Your task to perform on an android device: uninstall "Chime – Mobile Banking" Image 0: 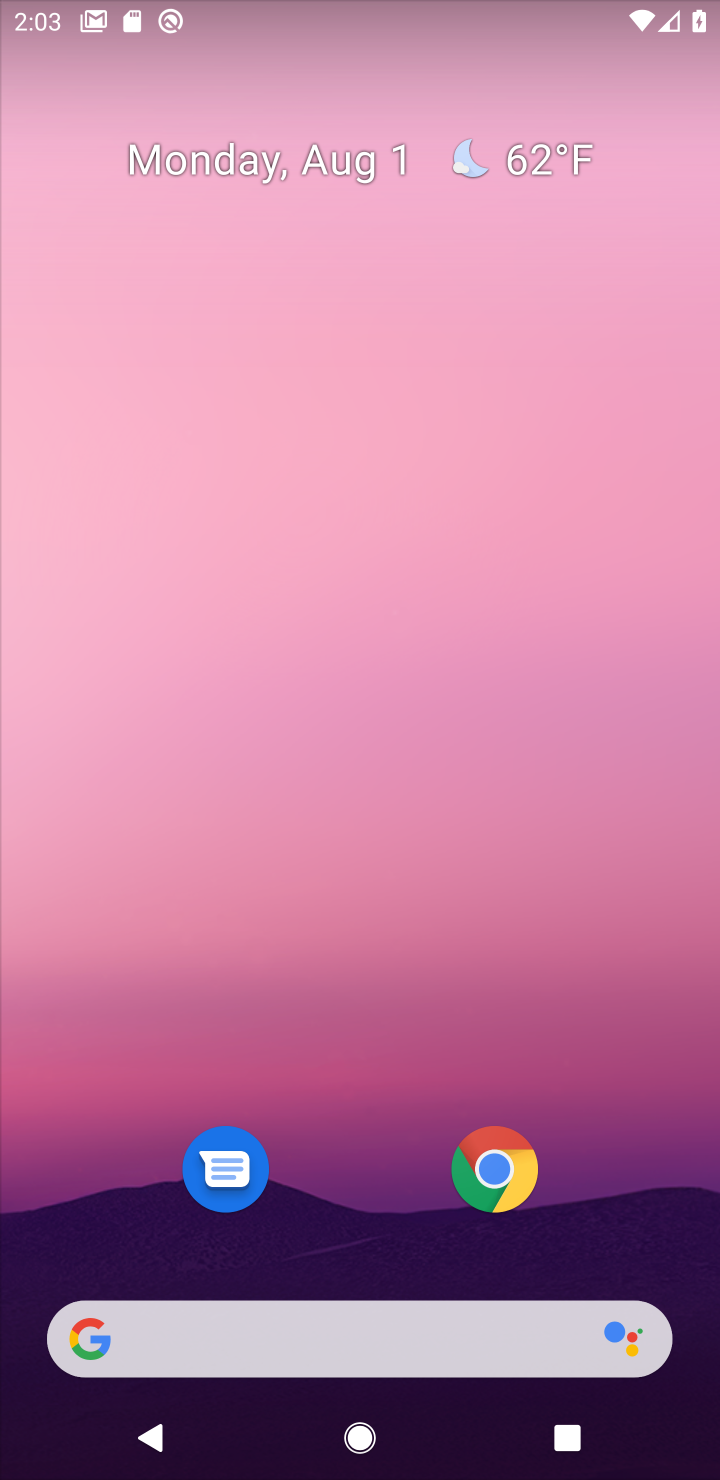
Step 0: drag from (326, 1183) to (326, 252)
Your task to perform on an android device: uninstall "Chime – Mobile Banking" Image 1: 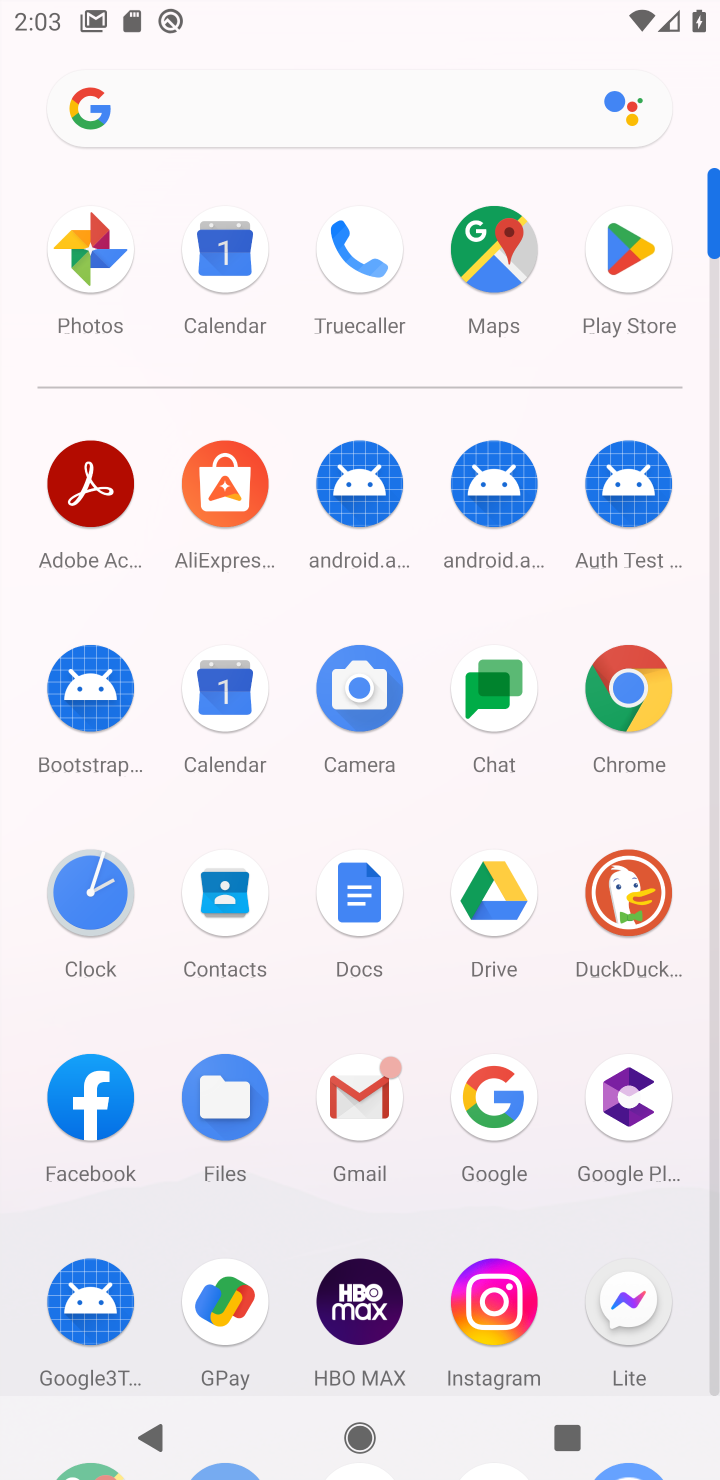
Step 1: click (650, 234)
Your task to perform on an android device: uninstall "Chime – Mobile Banking" Image 2: 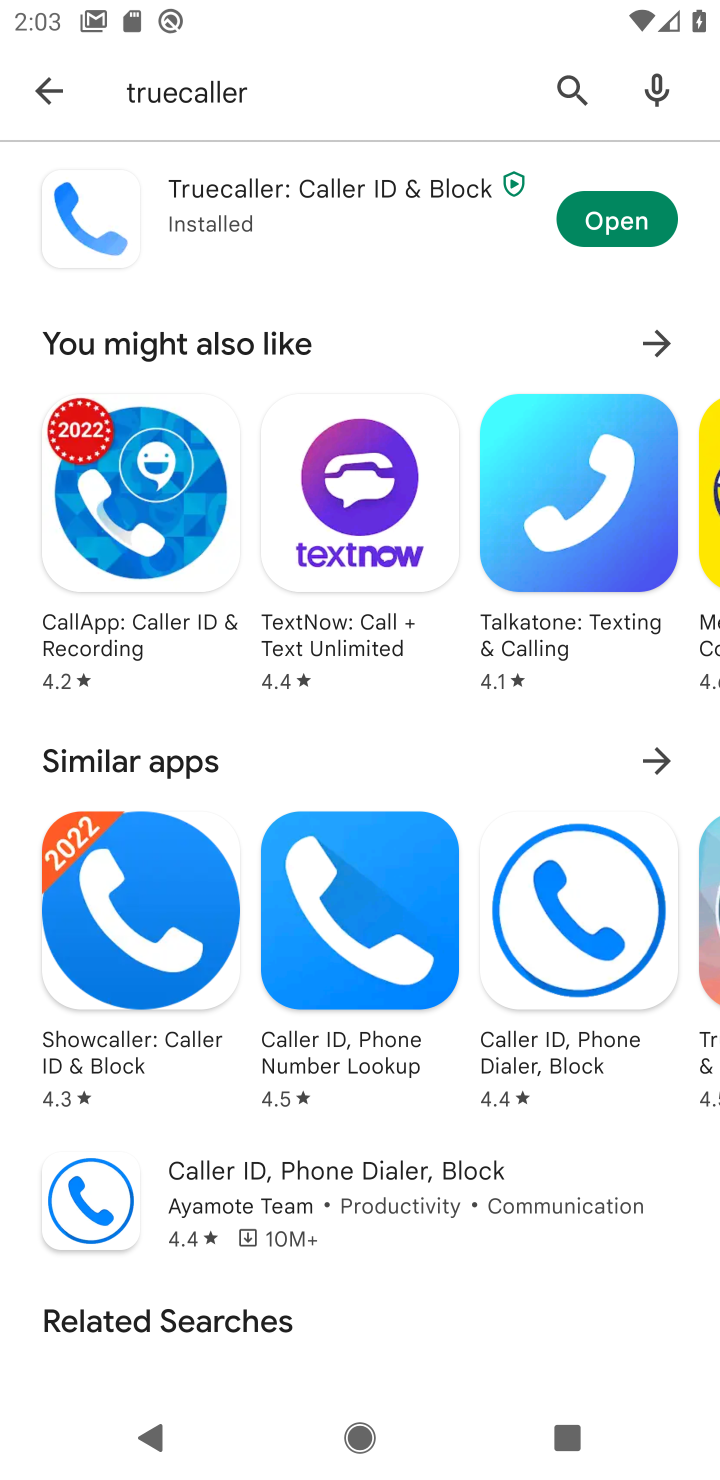
Step 2: click (48, 91)
Your task to perform on an android device: uninstall "Chime – Mobile Banking" Image 3: 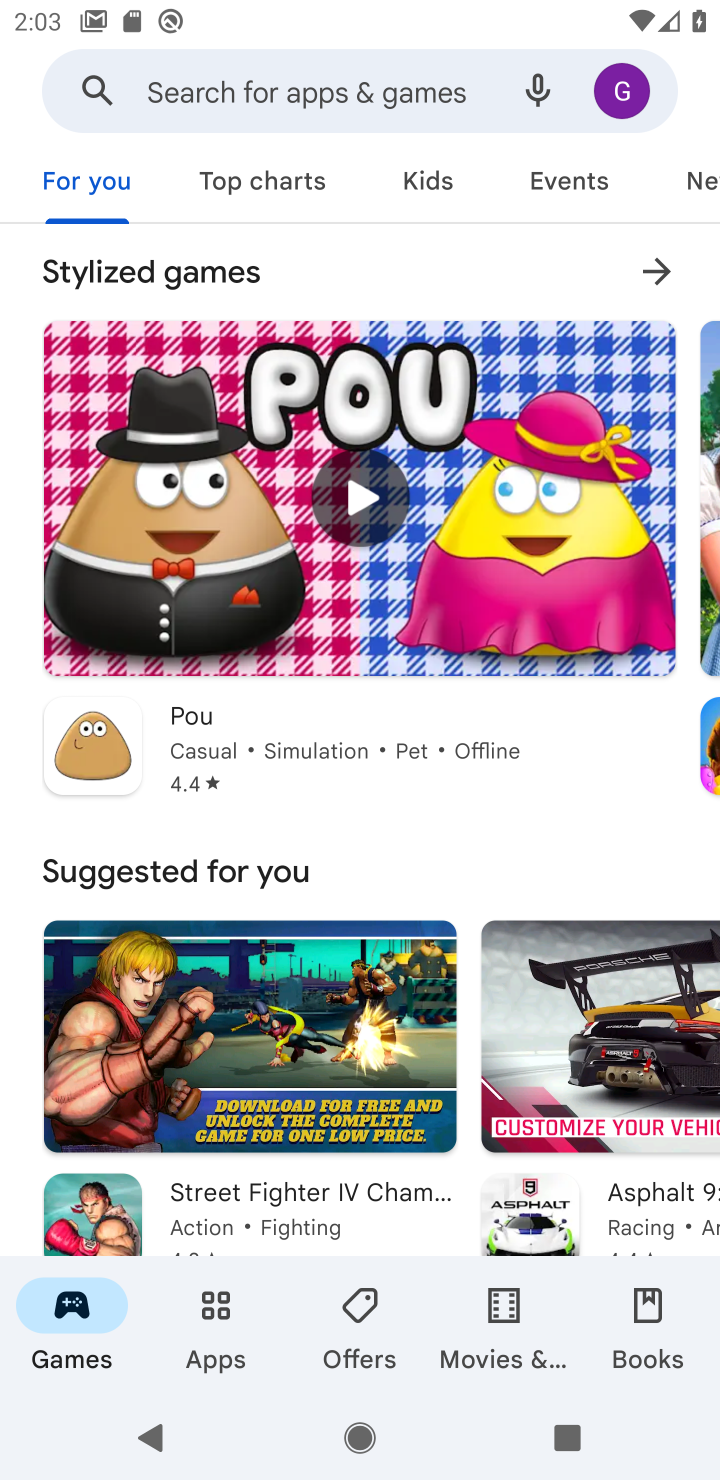
Step 3: click (234, 78)
Your task to perform on an android device: uninstall "Chime – Mobile Banking" Image 4: 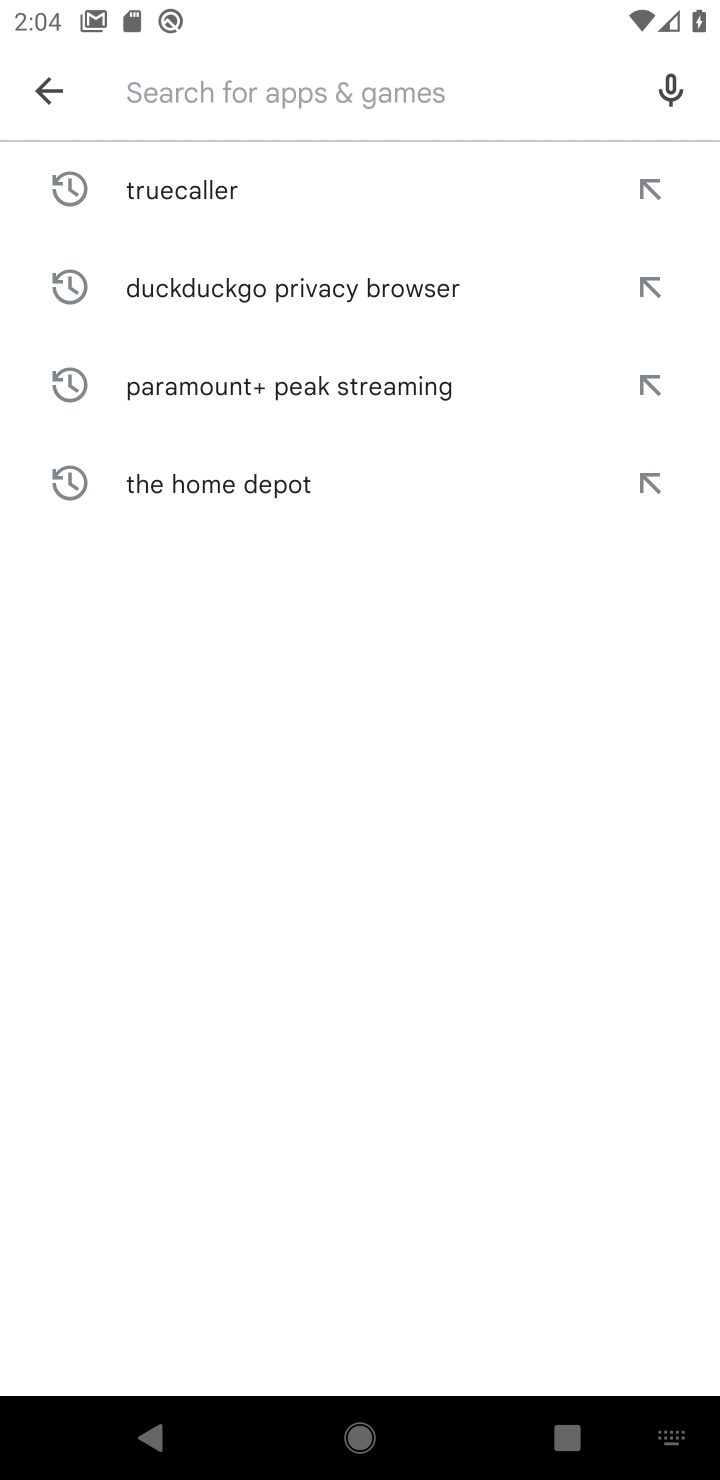
Step 4: type "Chime – Mobile Banking"
Your task to perform on an android device: uninstall "Chime – Mobile Banking" Image 5: 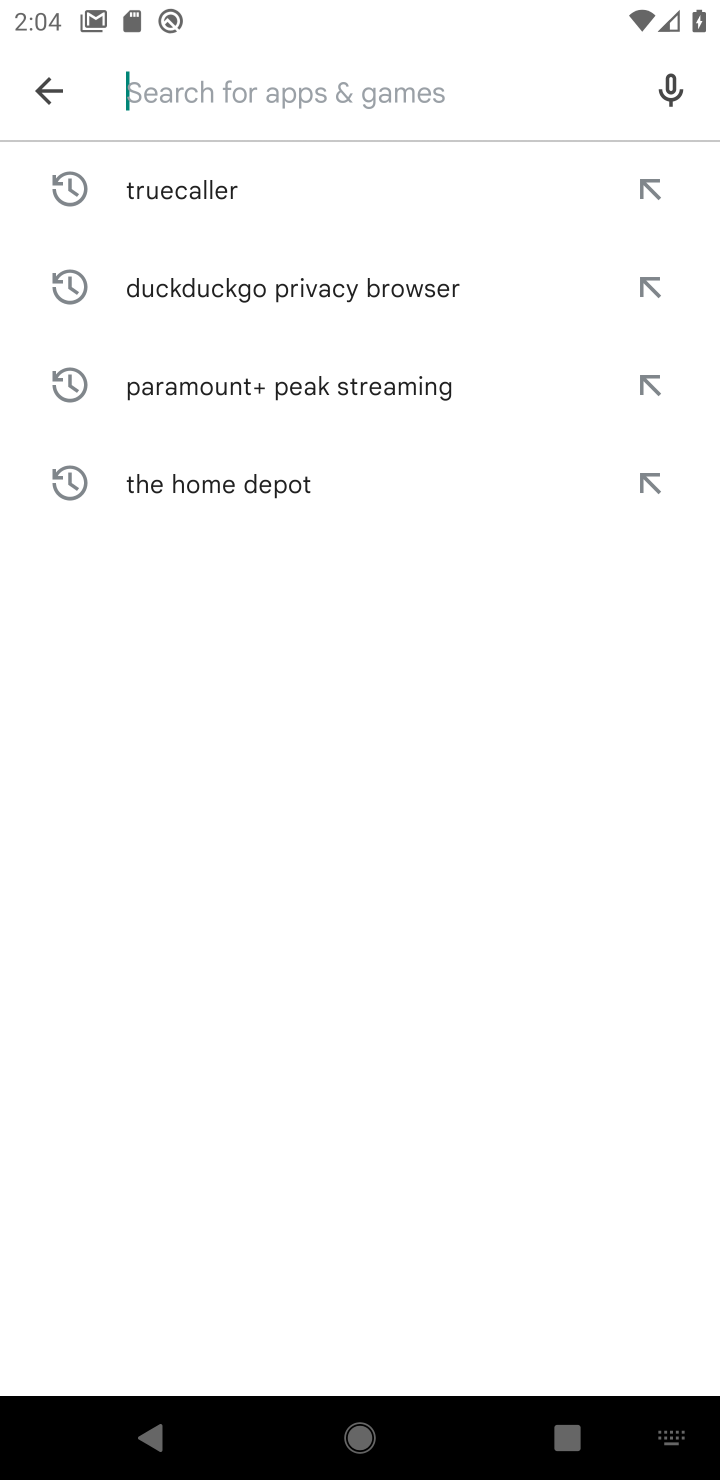
Step 5: click (267, 98)
Your task to perform on an android device: uninstall "Chime – Mobile Banking" Image 6: 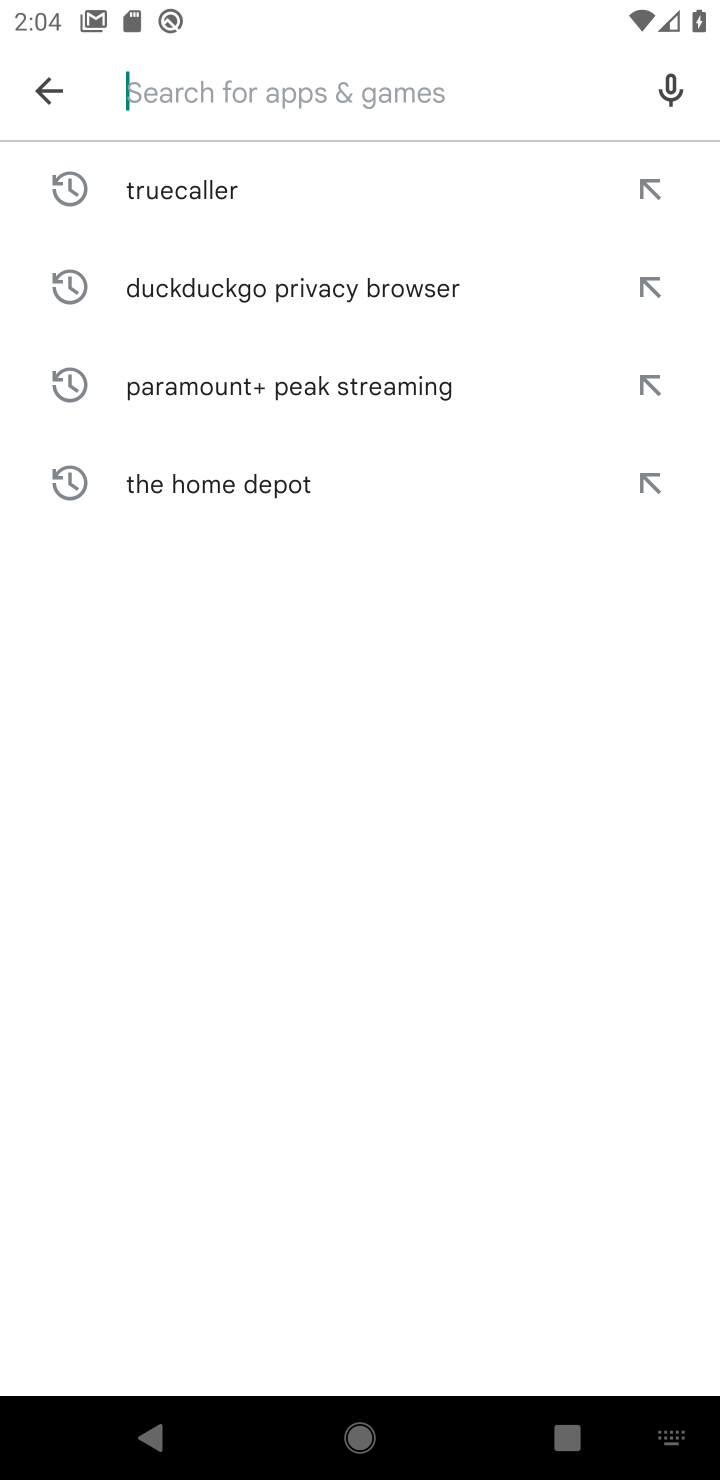
Step 6: type "Chime – Mobile Banking"
Your task to perform on an android device: uninstall "Chime – Mobile Banking" Image 7: 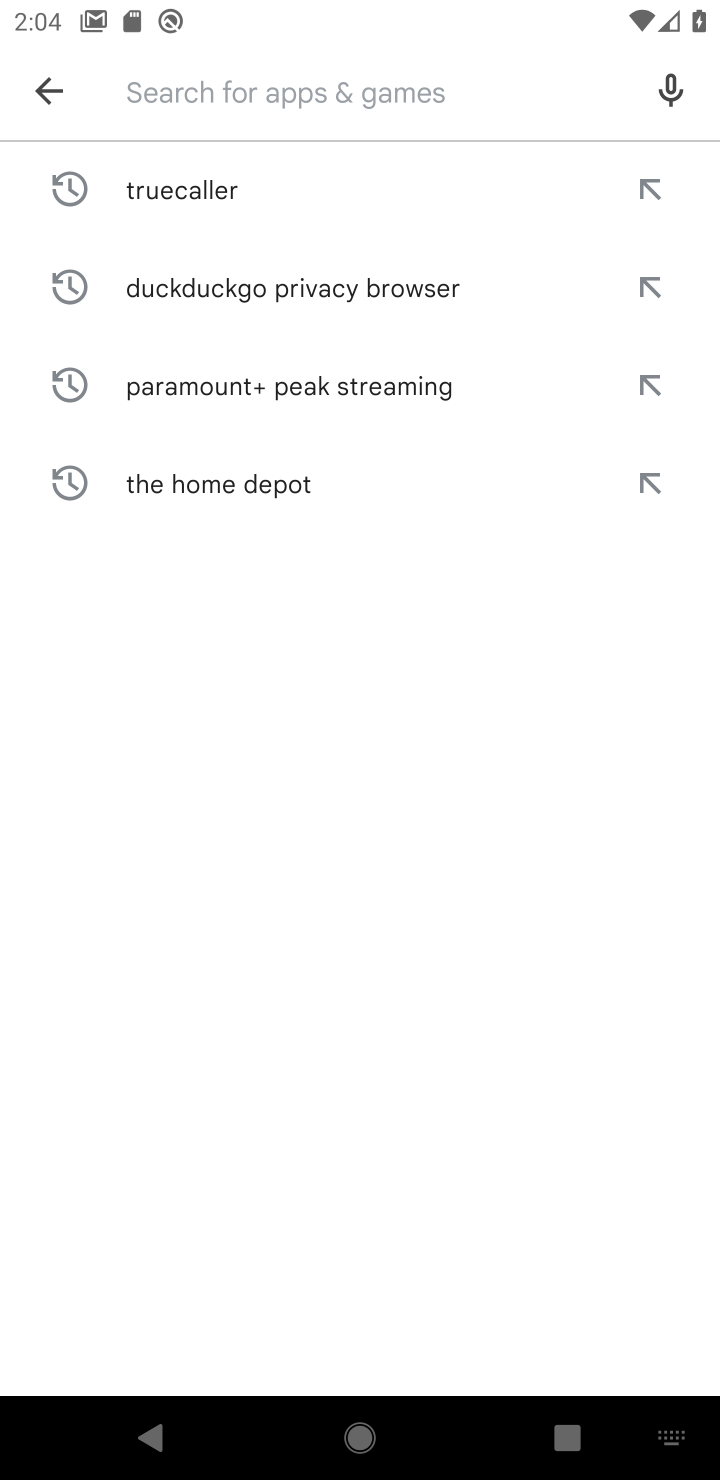
Step 7: click (55, 110)
Your task to perform on an android device: uninstall "Chime – Mobile Banking" Image 8: 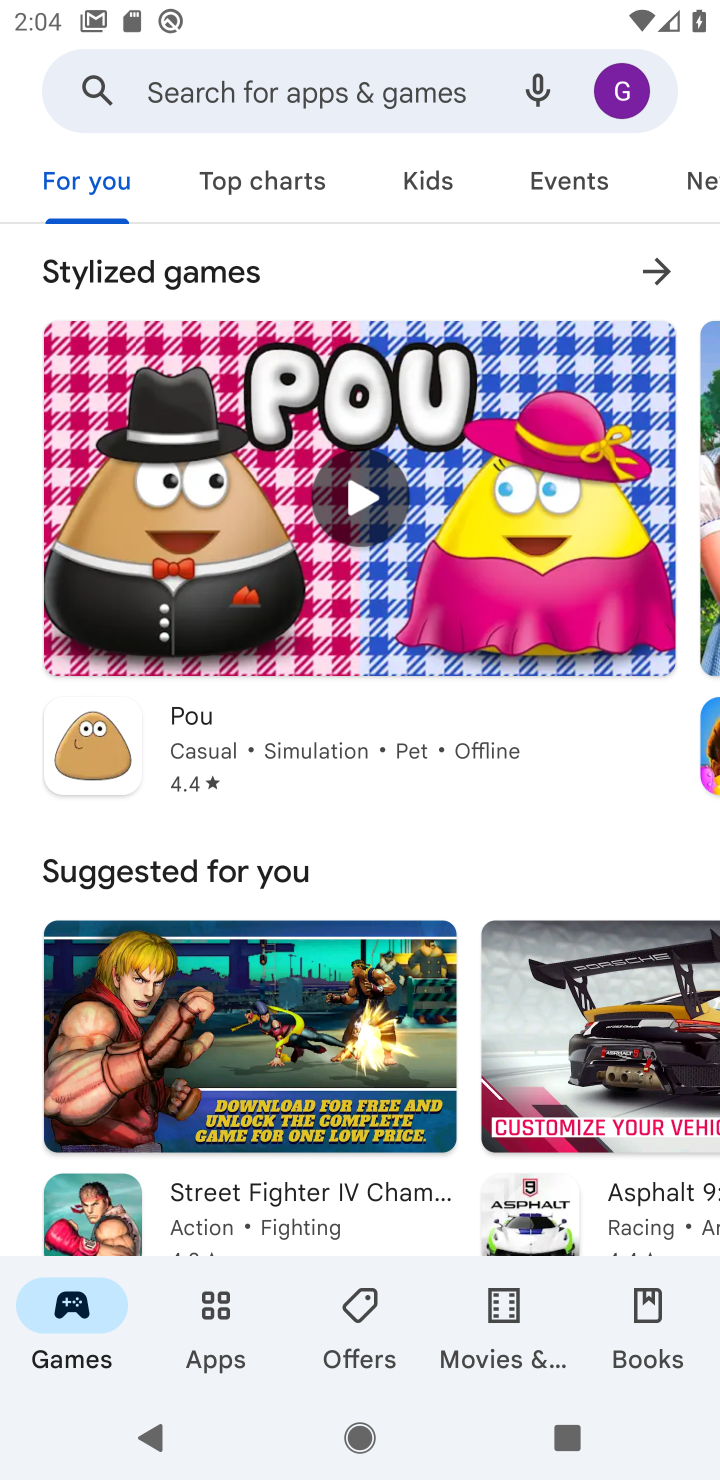
Step 8: click (260, 106)
Your task to perform on an android device: uninstall "Chime – Mobile Banking" Image 9: 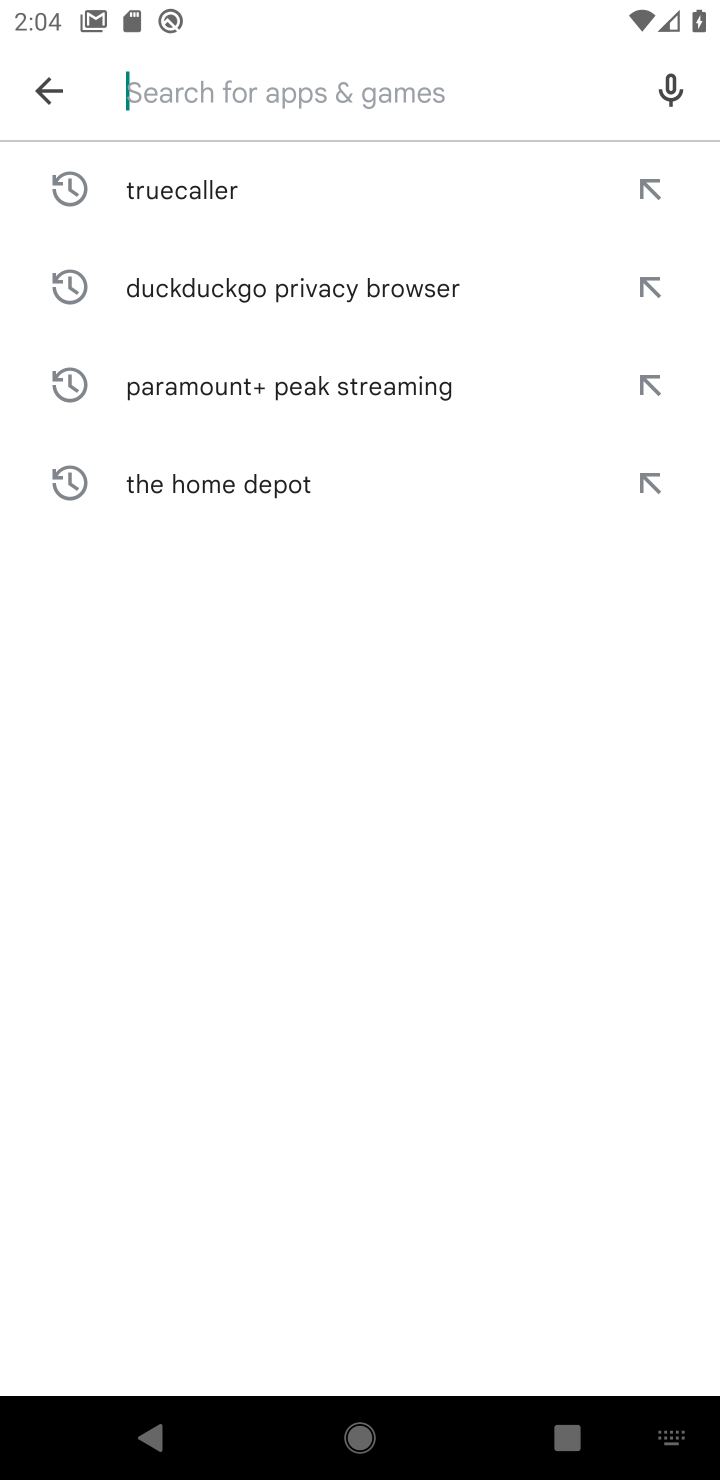
Step 9: type "Chime"
Your task to perform on an android device: uninstall "Chime – Mobile Banking" Image 10: 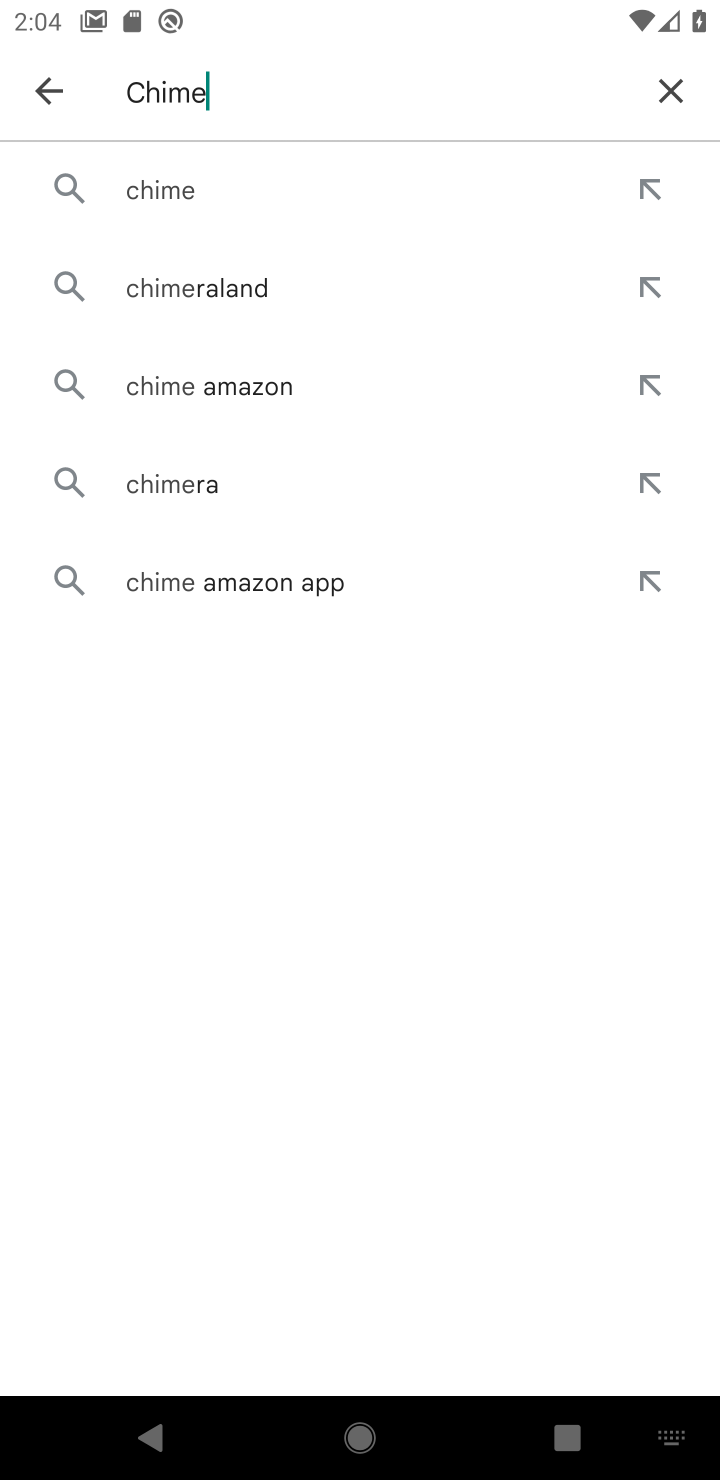
Step 10: click (162, 205)
Your task to perform on an android device: uninstall "Chime – Mobile Banking" Image 11: 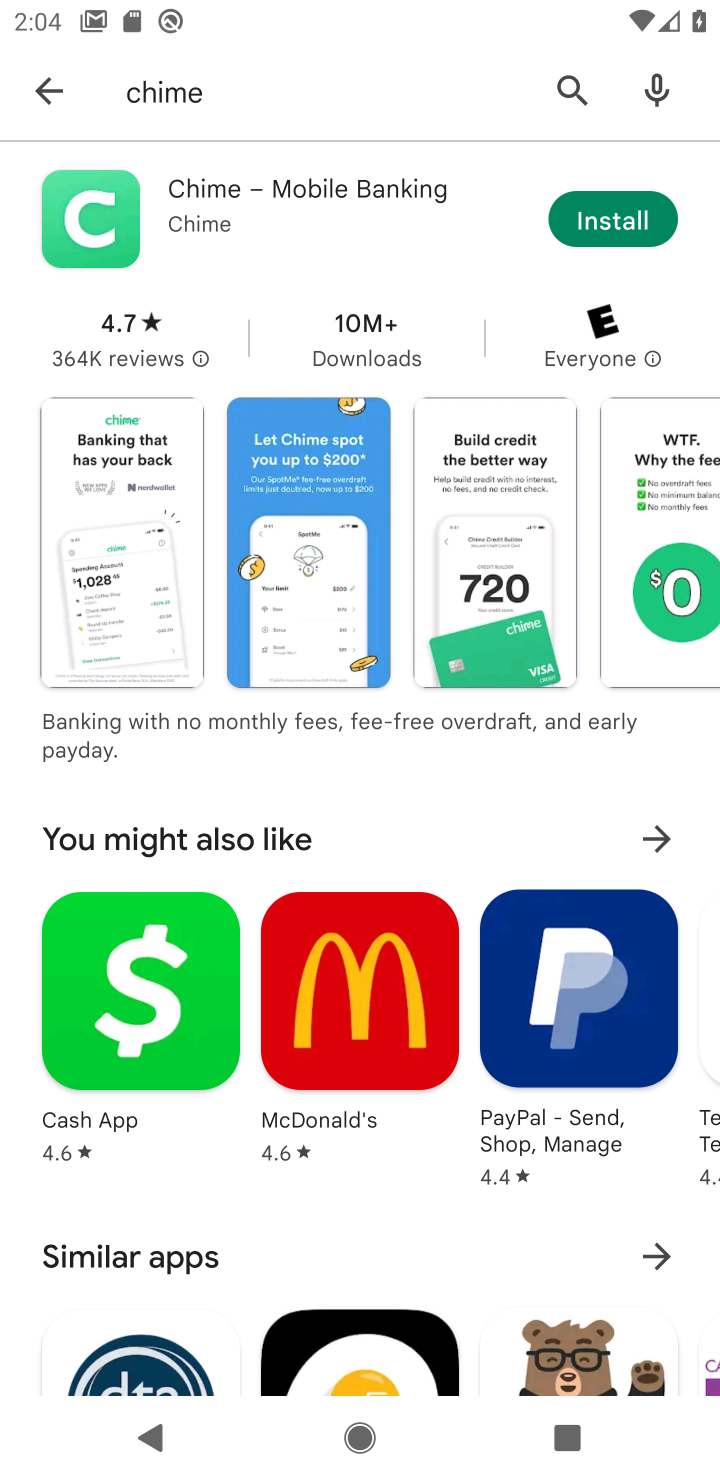
Step 11: click (630, 215)
Your task to perform on an android device: uninstall "Chime – Mobile Banking" Image 12: 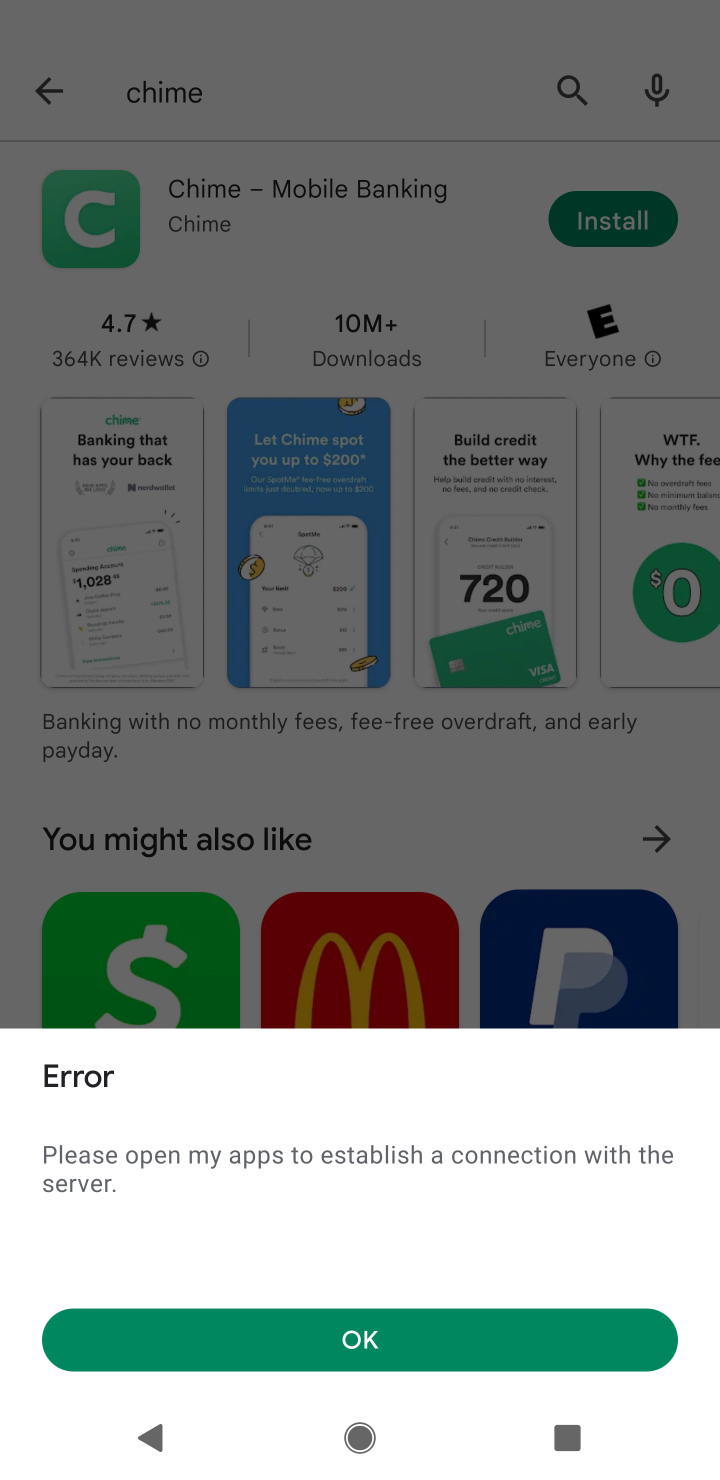
Step 12: click (344, 1329)
Your task to perform on an android device: uninstall "Chime – Mobile Banking" Image 13: 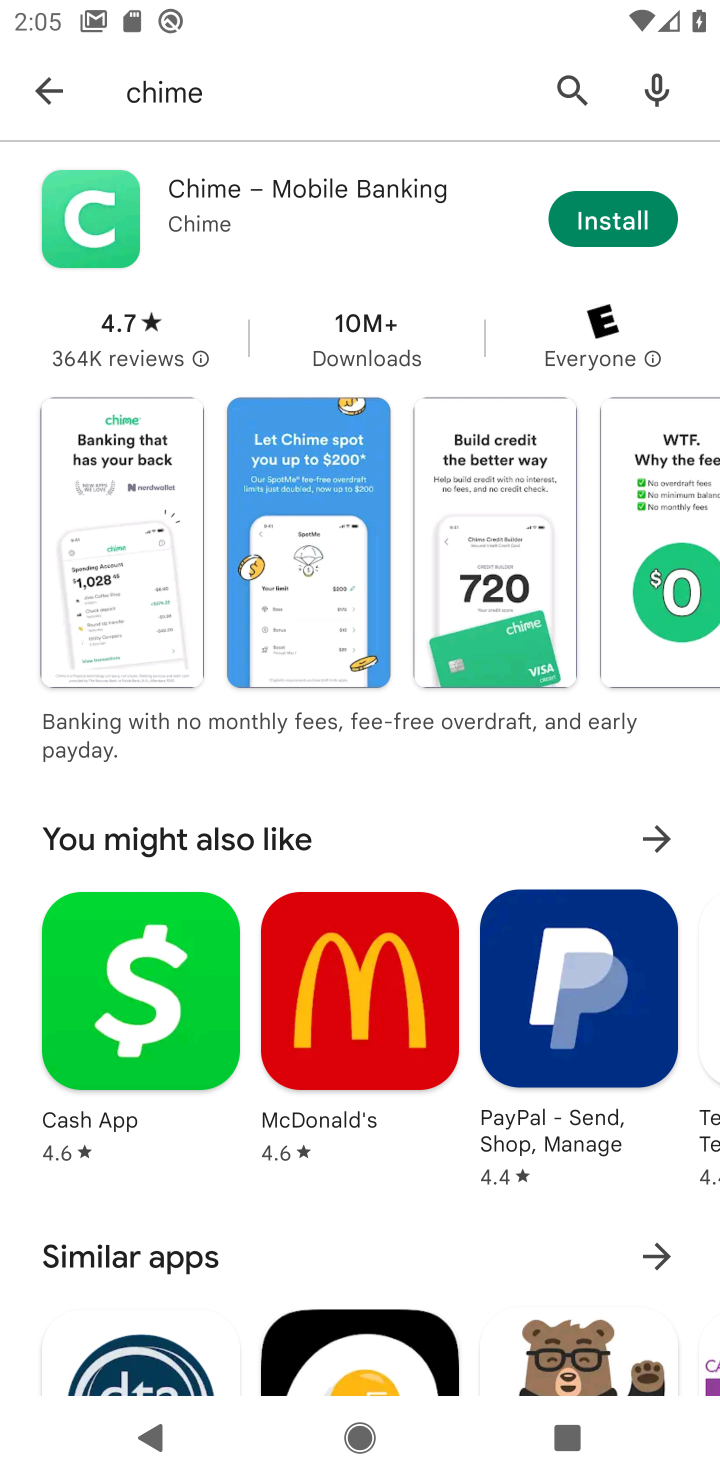
Step 13: click (612, 220)
Your task to perform on an android device: uninstall "Chime – Mobile Banking" Image 14: 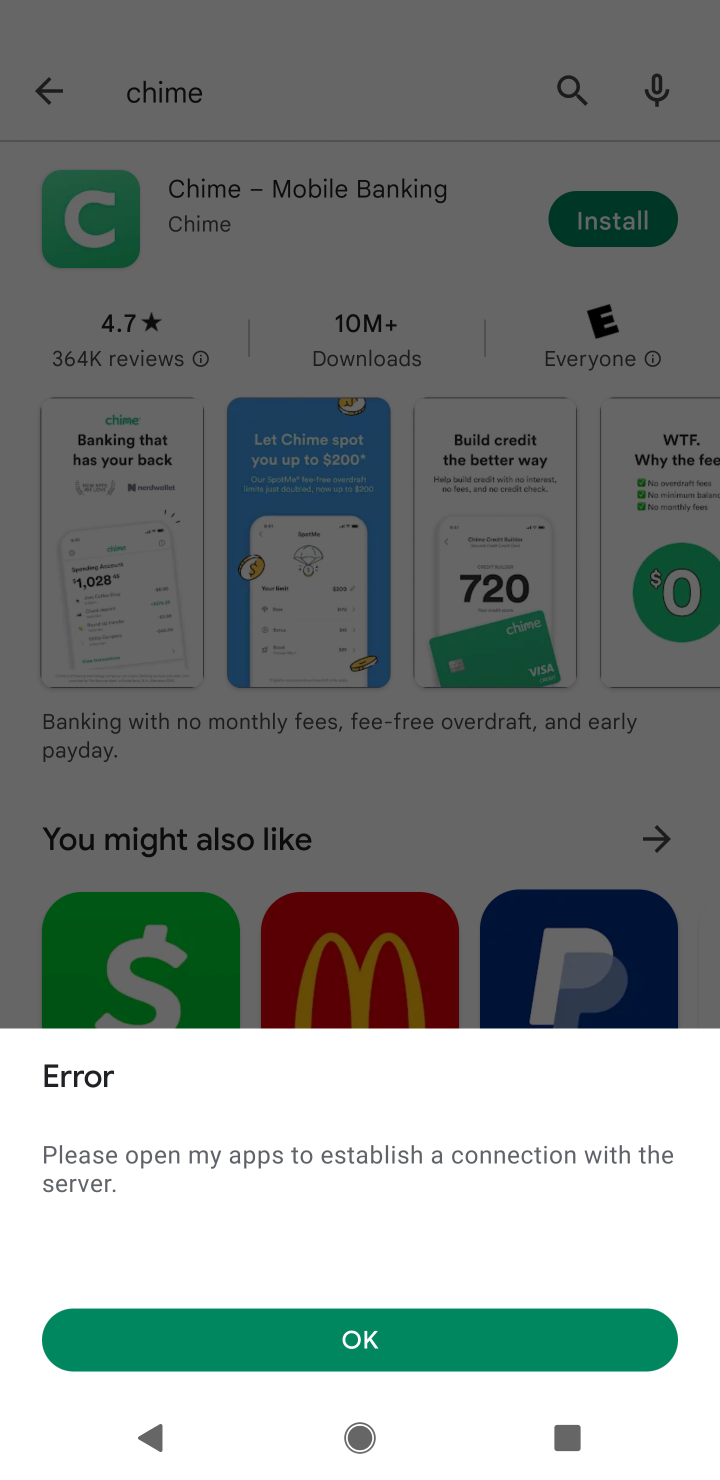
Step 14: task complete